Your task to perform on an android device: Search for Italian restaurants on Maps Image 0: 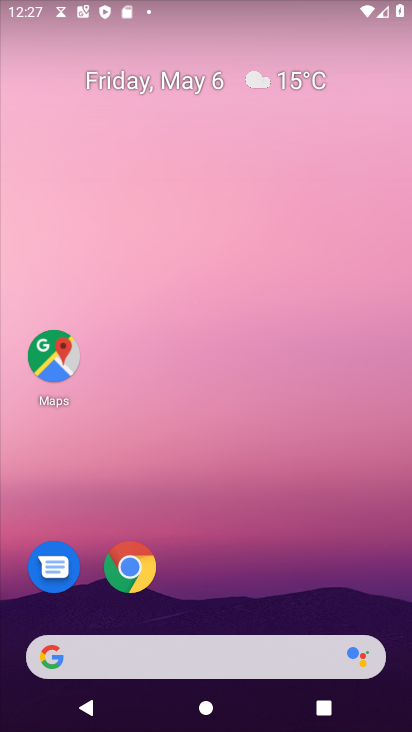
Step 0: drag from (334, 532) to (309, 148)
Your task to perform on an android device: Search for Italian restaurants on Maps Image 1: 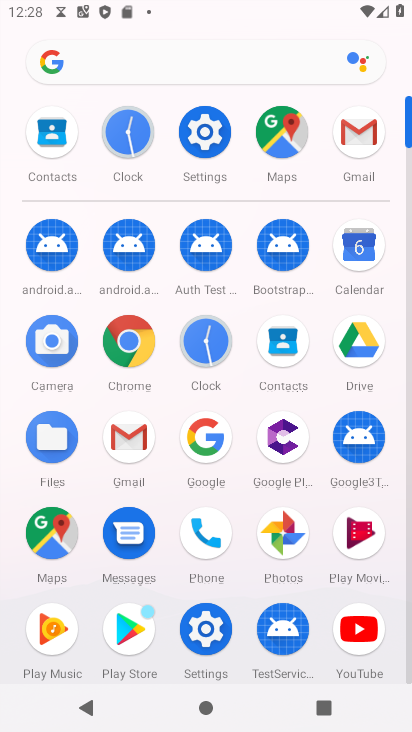
Step 1: click (274, 145)
Your task to perform on an android device: Search for Italian restaurants on Maps Image 2: 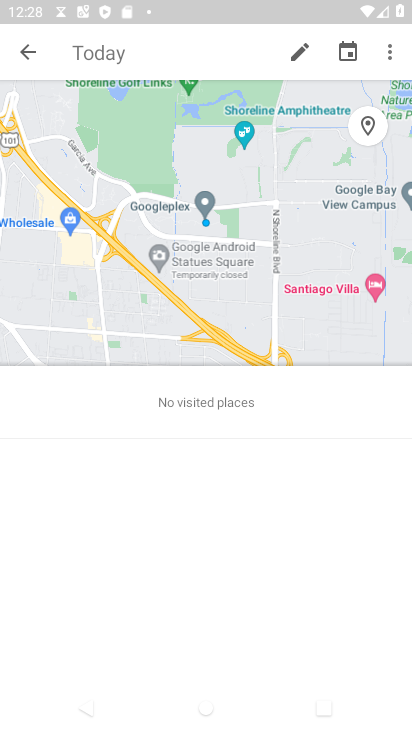
Step 2: click (45, 52)
Your task to perform on an android device: Search for Italian restaurants on Maps Image 3: 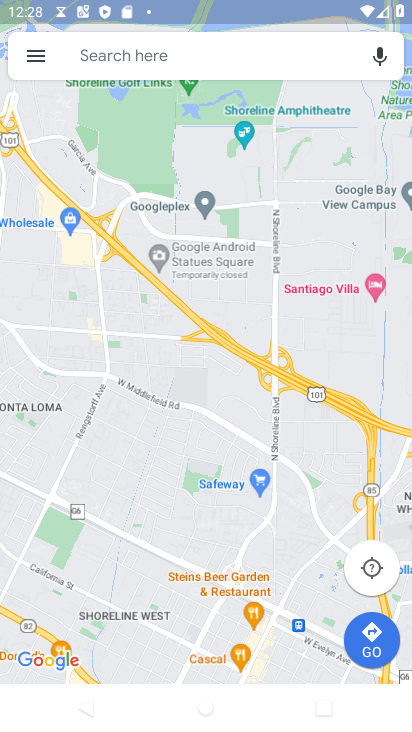
Step 3: click (147, 59)
Your task to perform on an android device: Search for Italian restaurants on Maps Image 4: 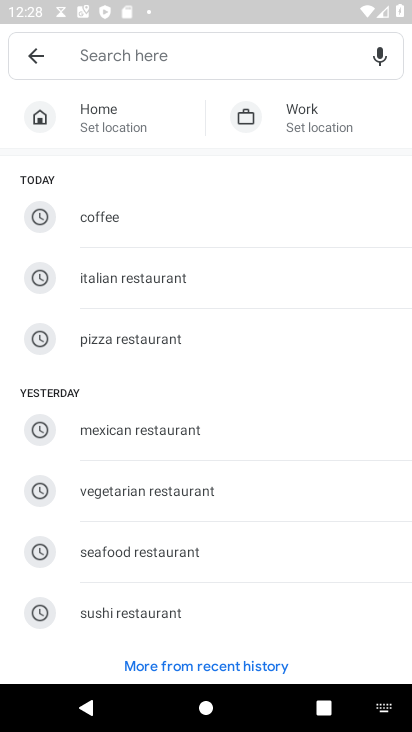
Step 4: click (198, 274)
Your task to perform on an android device: Search for Italian restaurants on Maps Image 5: 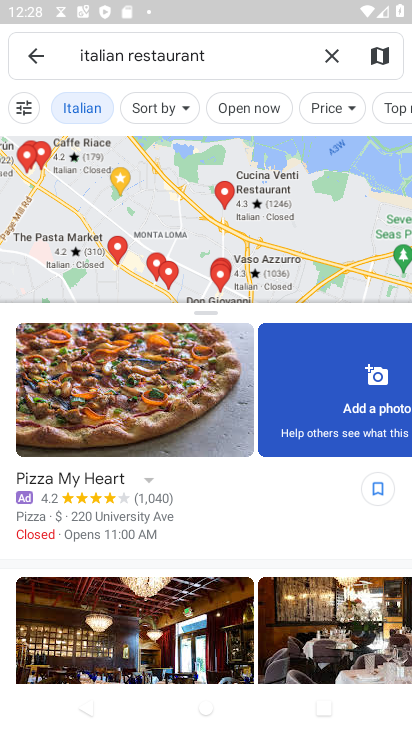
Step 5: task complete